Your task to perform on an android device: Show me productivity apps on the Play Store Image 0: 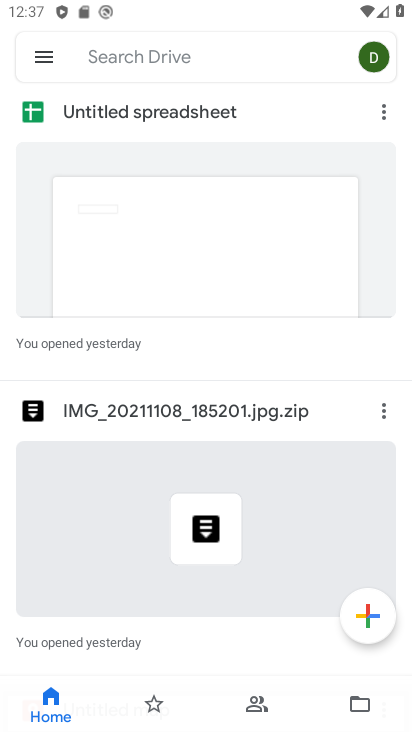
Step 0: press home button
Your task to perform on an android device: Show me productivity apps on the Play Store Image 1: 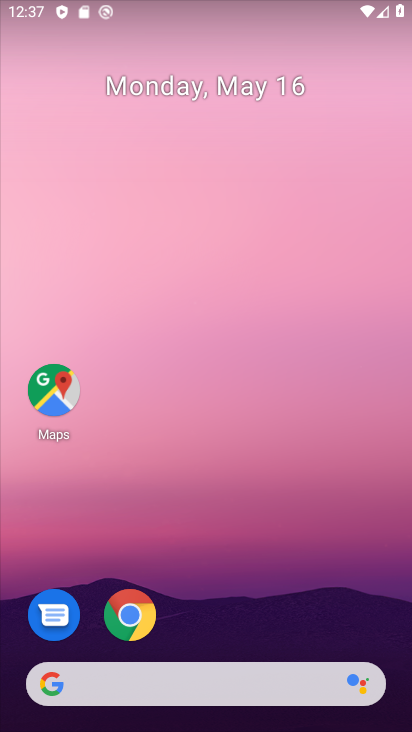
Step 1: drag from (287, 572) to (309, 109)
Your task to perform on an android device: Show me productivity apps on the Play Store Image 2: 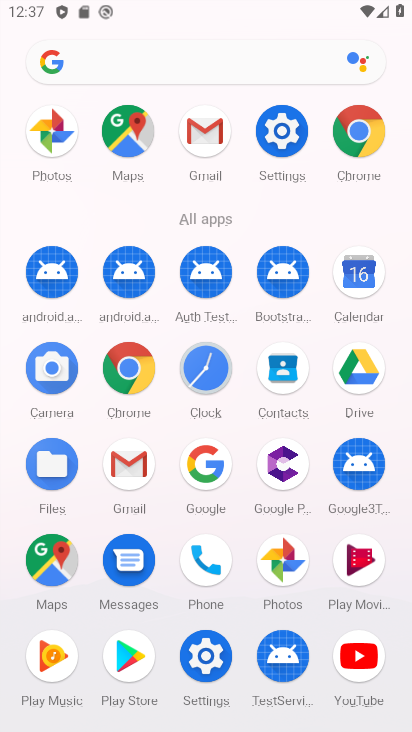
Step 2: click (136, 666)
Your task to perform on an android device: Show me productivity apps on the Play Store Image 3: 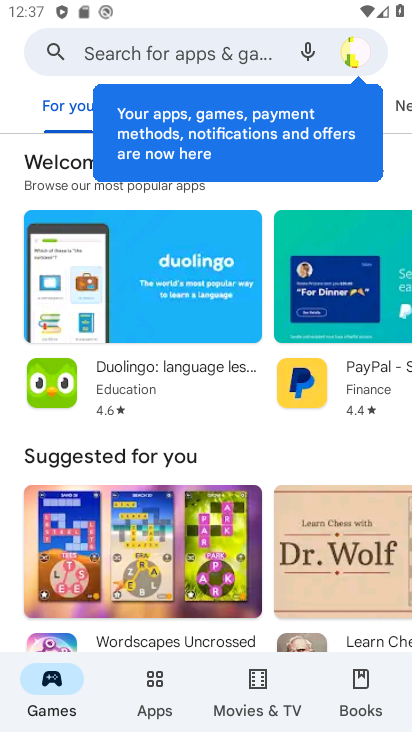
Step 3: click (155, 679)
Your task to perform on an android device: Show me productivity apps on the Play Store Image 4: 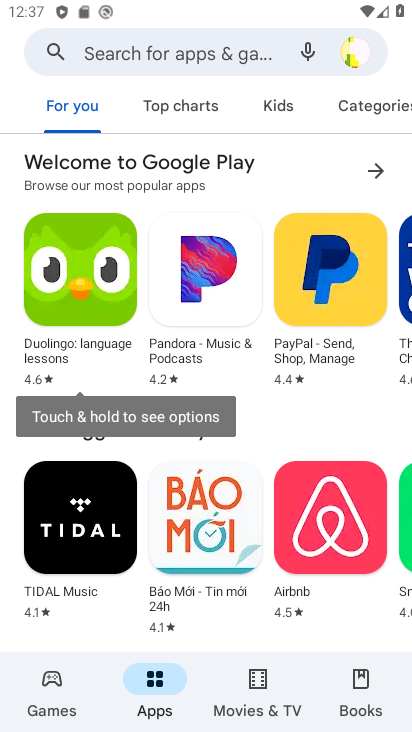
Step 4: task complete